Your task to perform on an android device: delete browsing data in the chrome app Image 0: 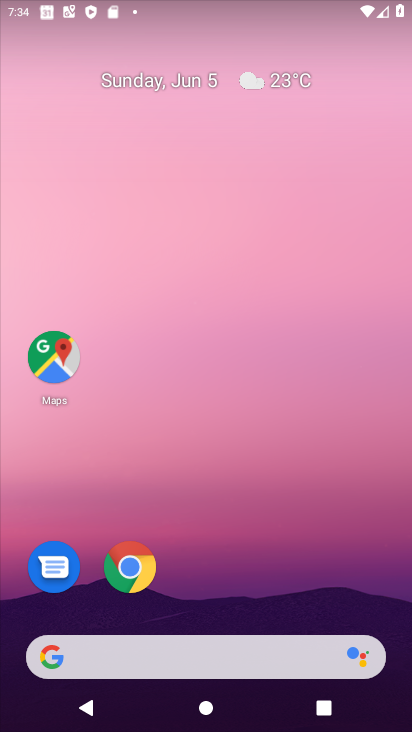
Step 0: drag from (360, 579) to (314, 0)
Your task to perform on an android device: delete browsing data in the chrome app Image 1: 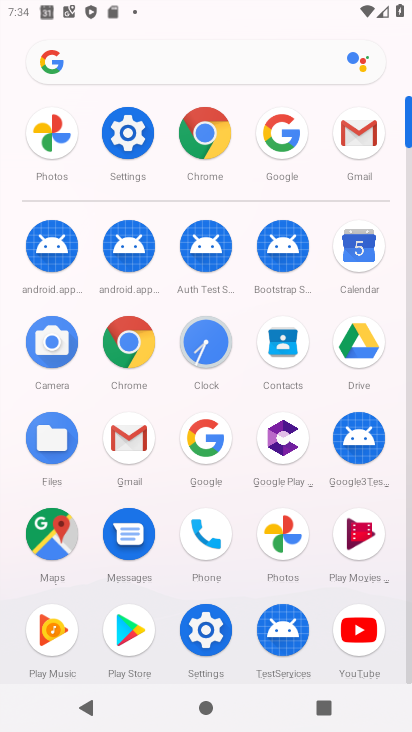
Step 1: click (210, 146)
Your task to perform on an android device: delete browsing data in the chrome app Image 2: 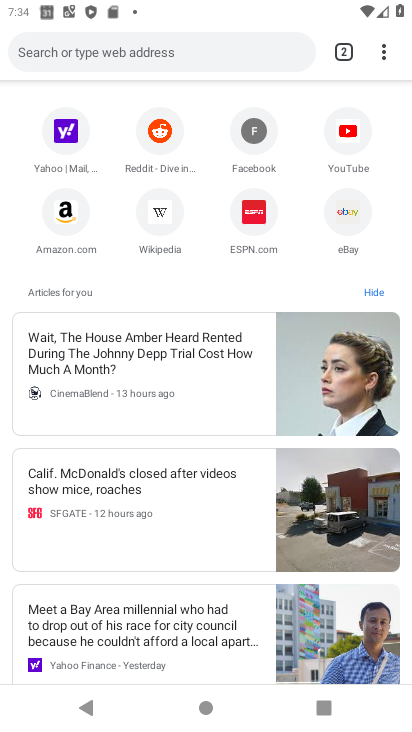
Step 2: click (387, 41)
Your task to perform on an android device: delete browsing data in the chrome app Image 3: 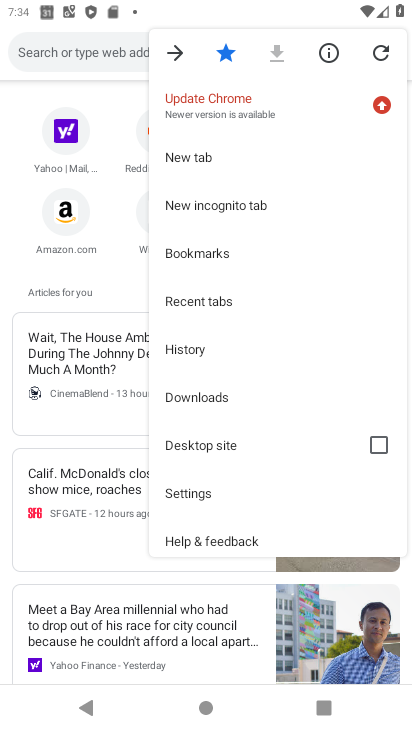
Step 3: click (186, 357)
Your task to perform on an android device: delete browsing data in the chrome app Image 4: 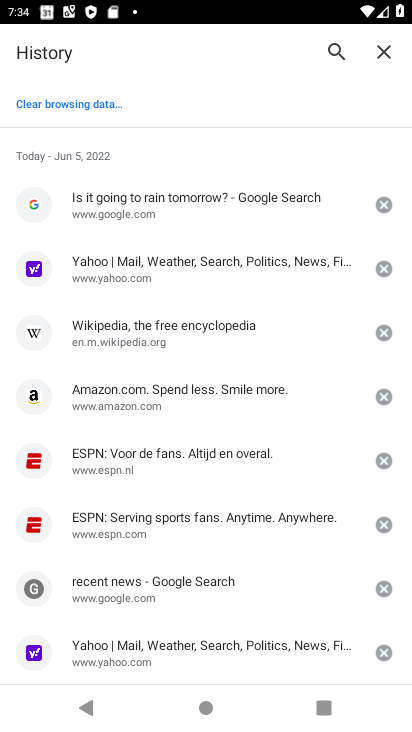
Step 4: click (73, 102)
Your task to perform on an android device: delete browsing data in the chrome app Image 5: 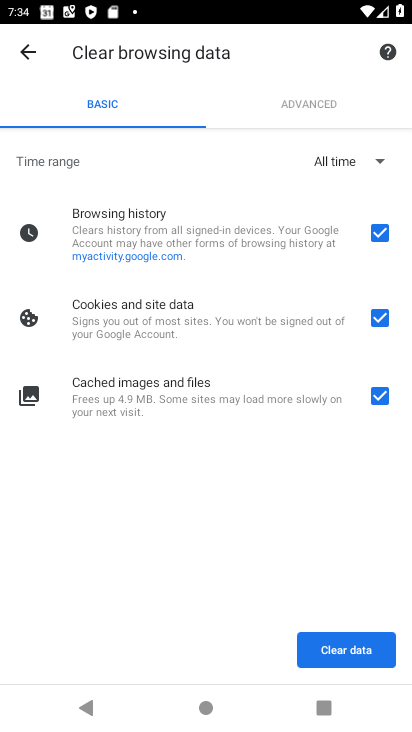
Step 5: click (368, 655)
Your task to perform on an android device: delete browsing data in the chrome app Image 6: 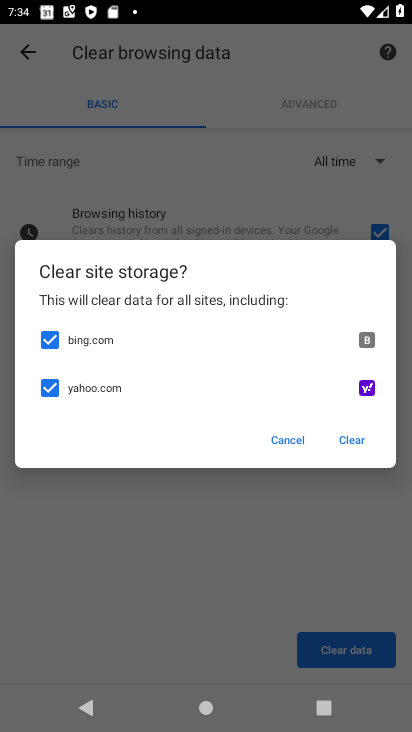
Step 6: click (347, 433)
Your task to perform on an android device: delete browsing data in the chrome app Image 7: 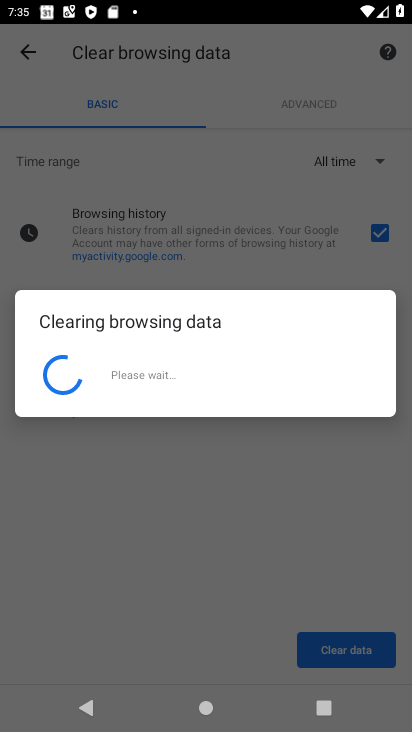
Step 7: task complete